Your task to perform on an android device: turn off data saver in the chrome app Image 0: 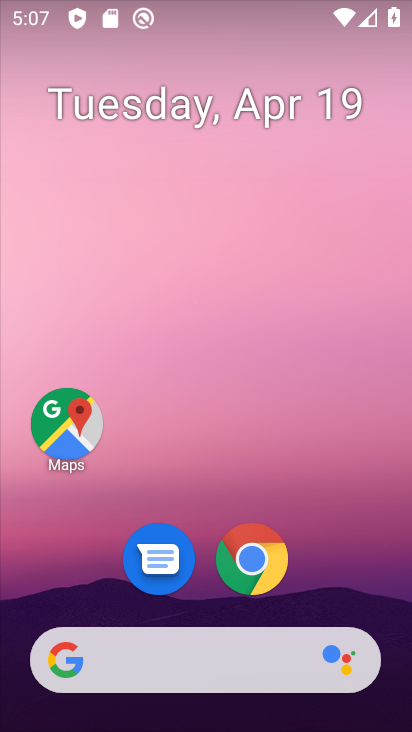
Step 0: drag from (351, 582) to (332, 135)
Your task to perform on an android device: turn off data saver in the chrome app Image 1: 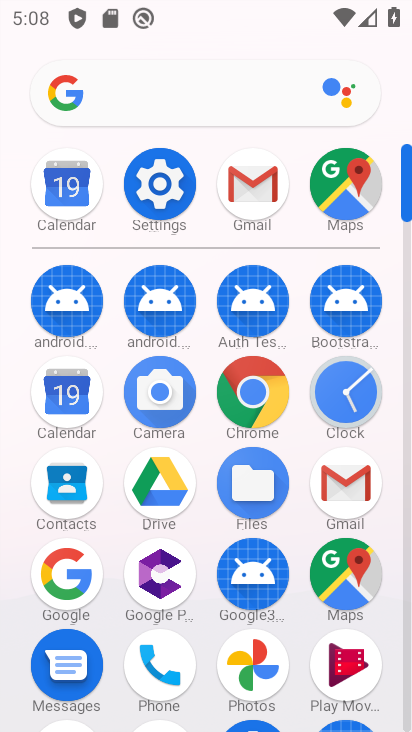
Step 1: click (255, 385)
Your task to perform on an android device: turn off data saver in the chrome app Image 2: 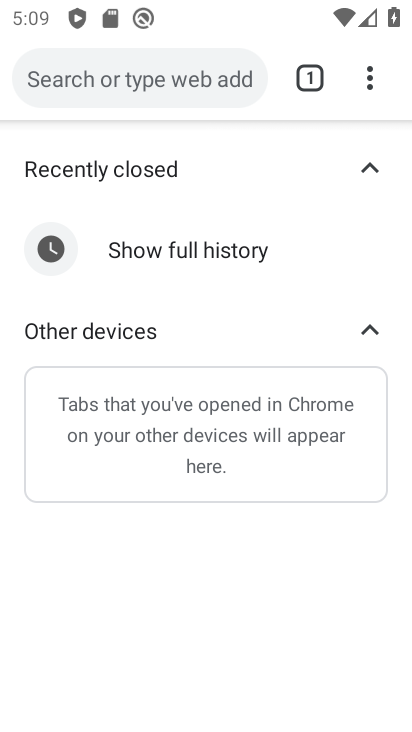
Step 2: click (226, 95)
Your task to perform on an android device: turn off data saver in the chrome app Image 3: 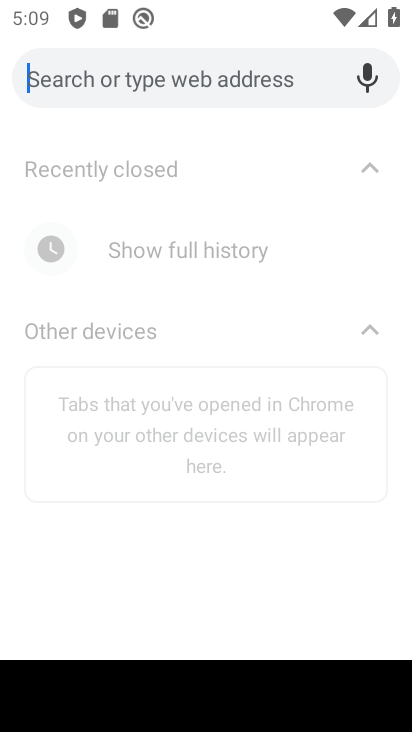
Step 3: press home button
Your task to perform on an android device: turn off data saver in the chrome app Image 4: 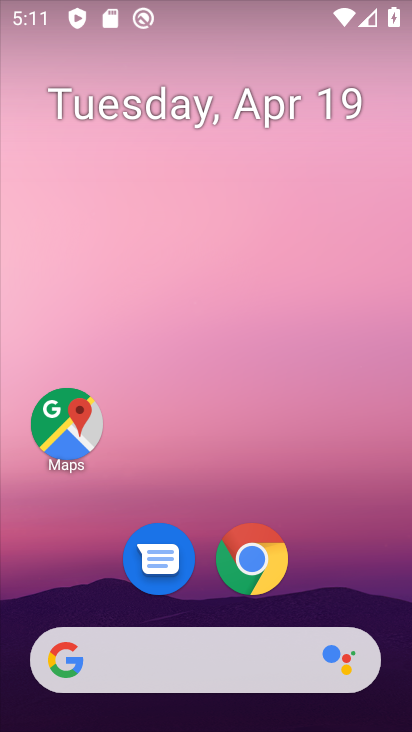
Step 4: click (274, 576)
Your task to perform on an android device: turn off data saver in the chrome app Image 5: 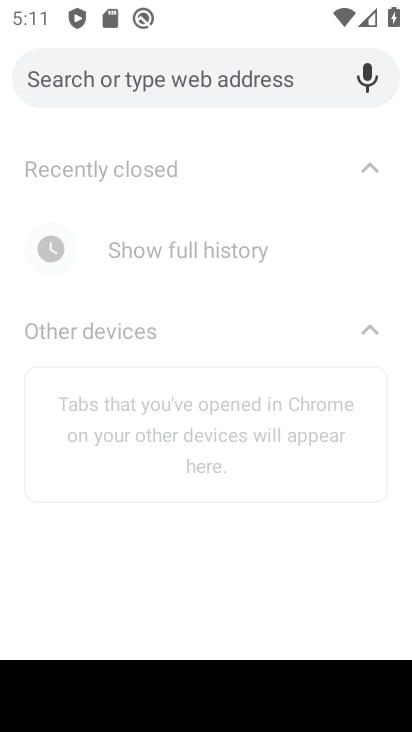
Step 5: press back button
Your task to perform on an android device: turn off data saver in the chrome app Image 6: 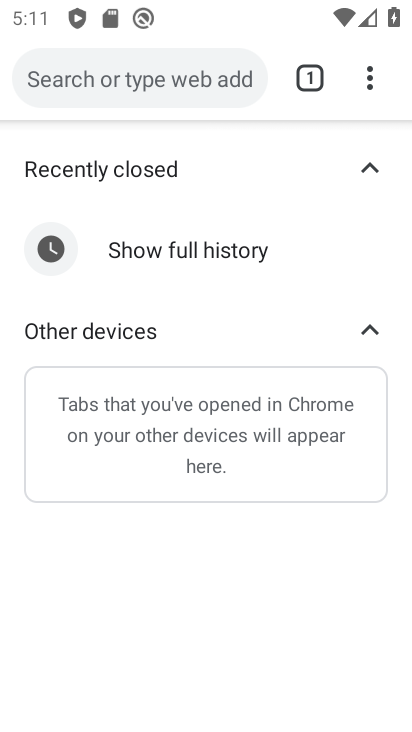
Step 6: click (369, 65)
Your task to perform on an android device: turn off data saver in the chrome app Image 7: 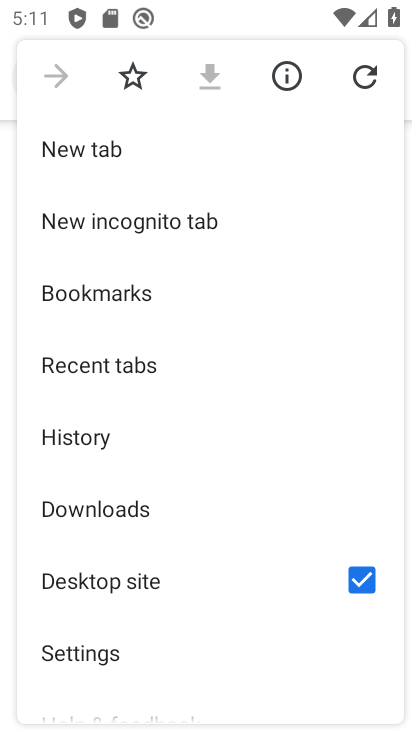
Step 7: click (168, 646)
Your task to perform on an android device: turn off data saver in the chrome app Image 8: 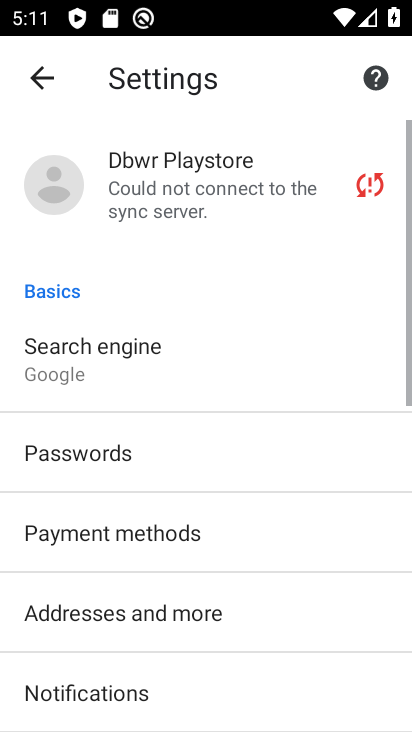
Step 8: drag from (175, 577) to (187, 304)
Your task to perform on an android device: turn off data saver in the chrome app Image 9: 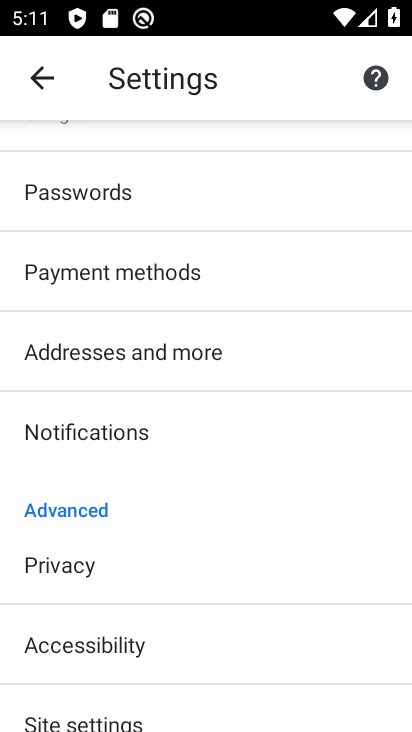
Step 9: drag from (209, 639) to (213, 348)
Your task to perform on an android device: turn off data saver in the chrome app Image 10: 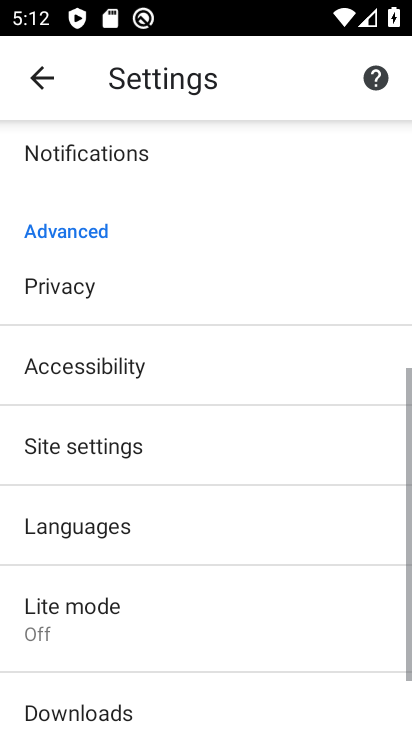
Step 10: click (148, 605)
Your task to perform on an android device: turn off data saver in the chrome app Image 11: 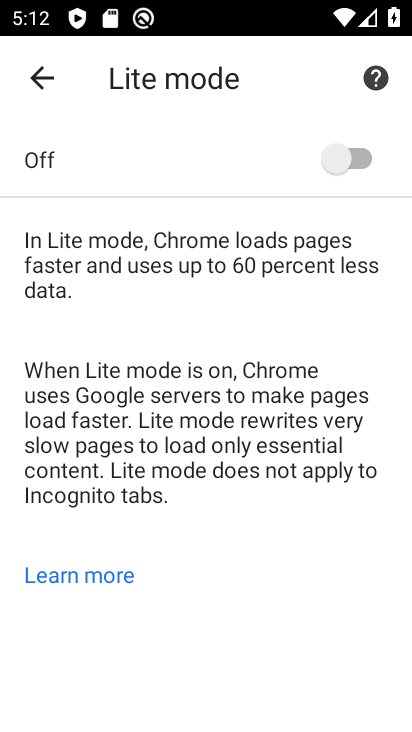
Step 11: click (328, 174)
Your task to perform on an android device: turn off data saver in the chrome app Image 12: 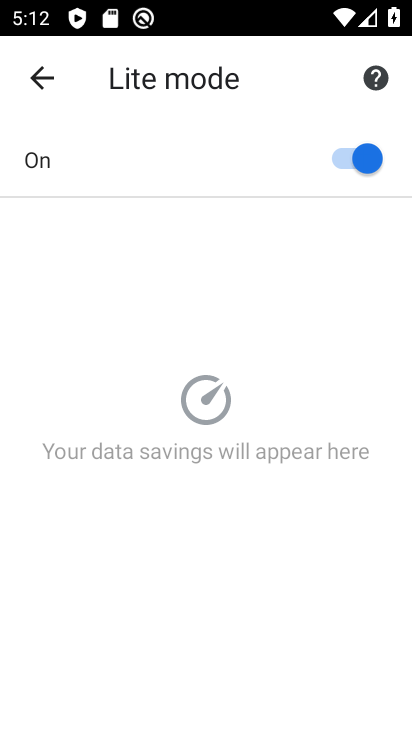
Step 12: task complete